Your task to perform on an android device: Open the map Image 0: 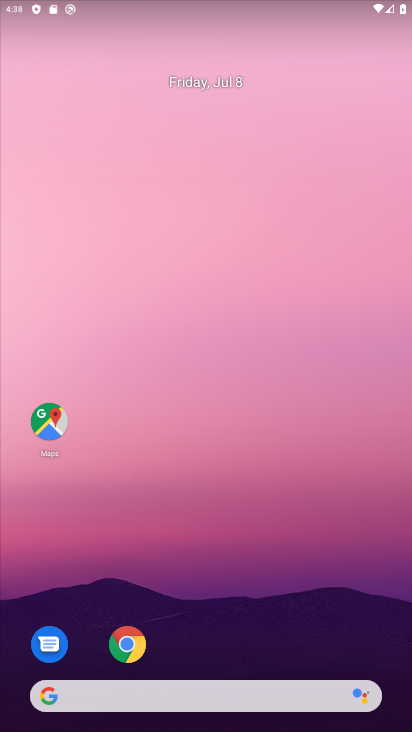
Step 0: click (49, 426)
Your task to perform on an android device: Open the map Image 1: 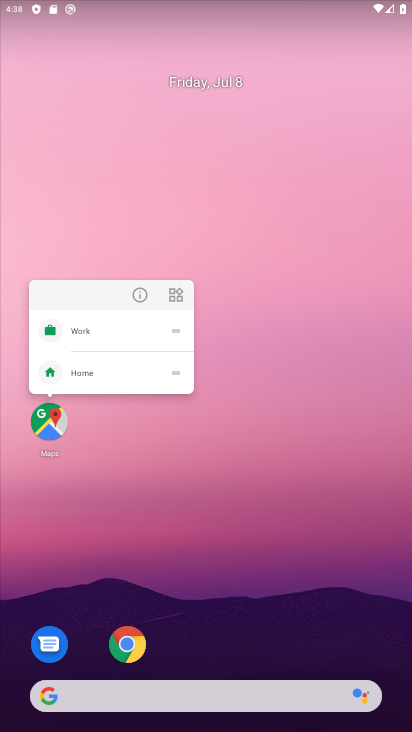
Step 1: click (51, 425)
Your task to perform on an android device: Open the map Image 2: 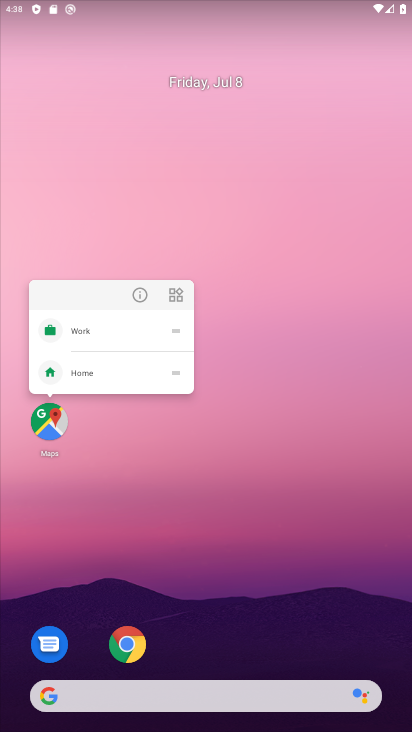
Step 2: click (377, 625)
Your task to perform on an android device: Open the map Image 3: 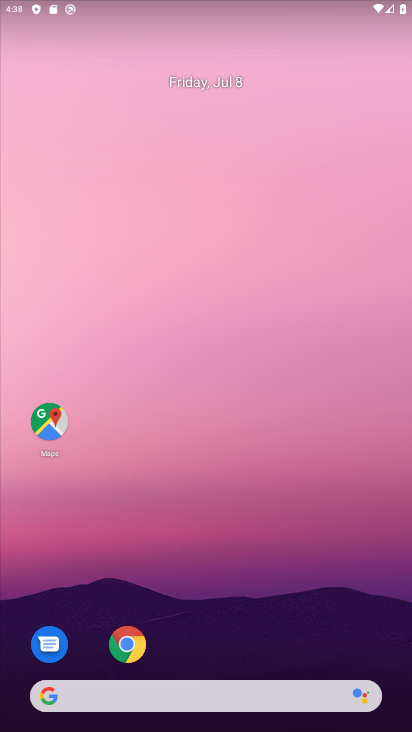
Step 3: drag from (331, 629) to (319, 116)
Your task to perform on an android device: Open the map Image 4: 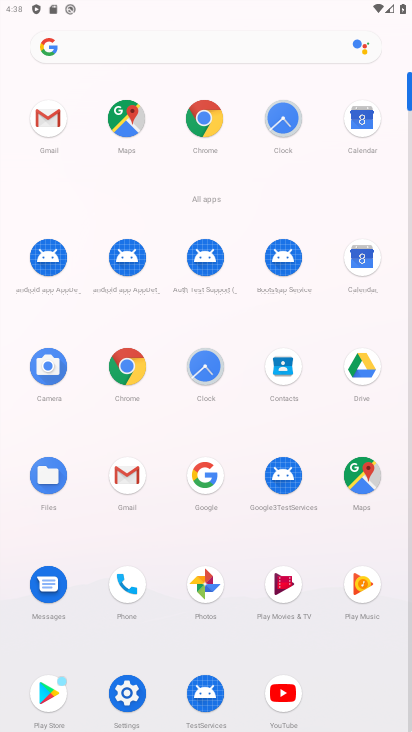
Step 4: click (125, 113)
Your task to perform on an android device: Open the map Image 5: 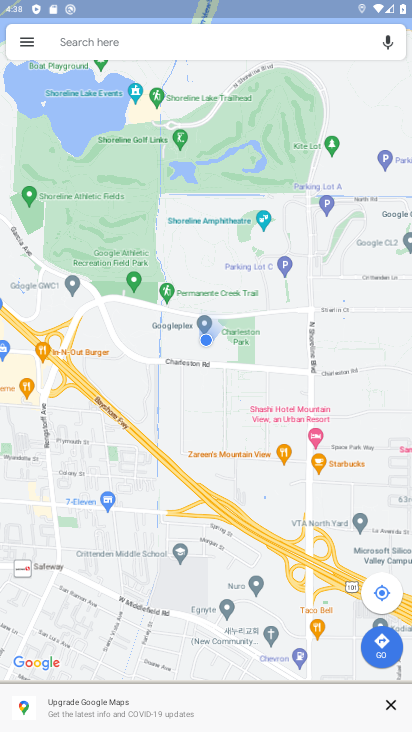
Step 5: task complete